Your task to perform on an android device: Open calendar and show me the fourth week of next month Image 0: 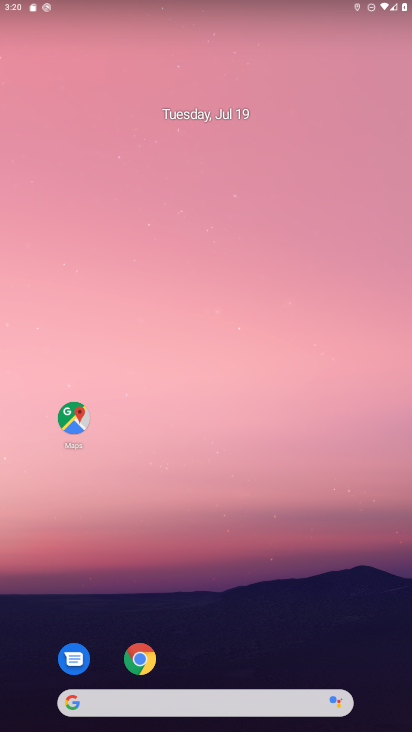
Step 0: drag from (235, 640) to (193, 135)
Your task to perform on an android device: Open calendar and show me the fourth week of next month Image 1: 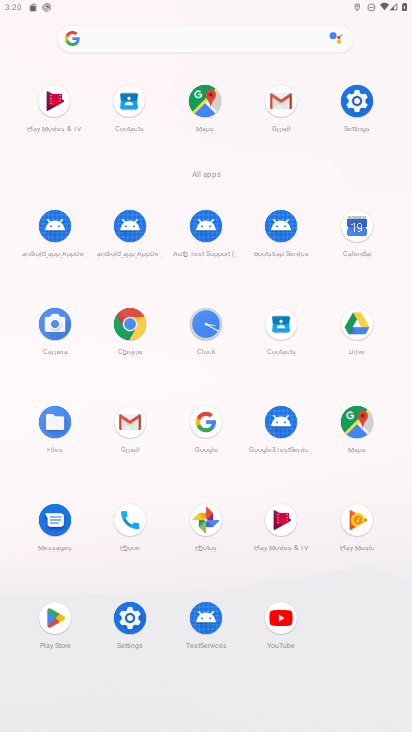
Step 1: click (354, 227)
Your task to perform on an android device: Open calendar and show me the fourth week of next month Image 2: 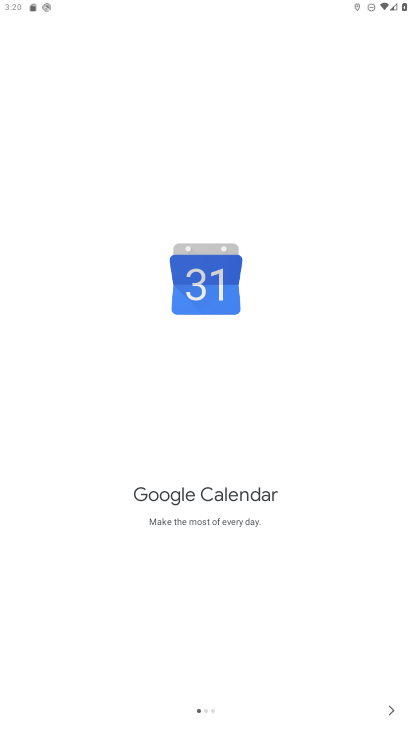
Step 2: click (397, 709)
Your task to perform on an android device: Open calendar and show me the fourth week of next month Image 3: 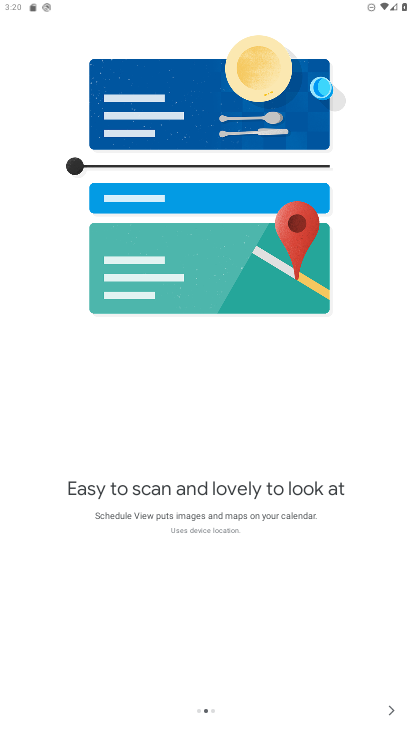
Step 3: click (397, 709)
Your task to perform on an android device: Open calendar and show me the fourth week of next month Image 4: 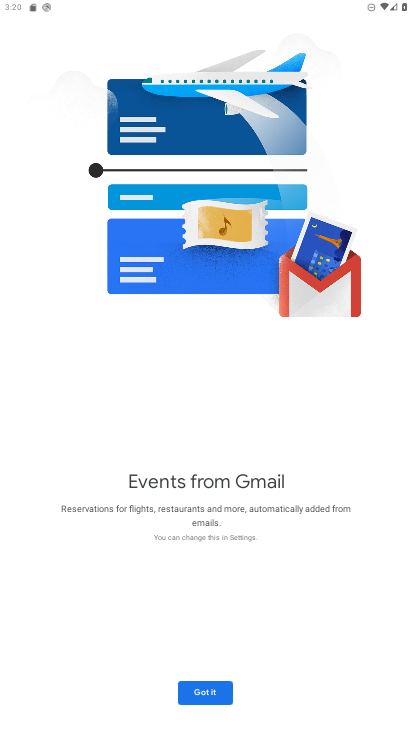
Step 4: click (208, 693)
Your task to perform on an android device: Open calendar and show me the fourth week of next month Image 5: 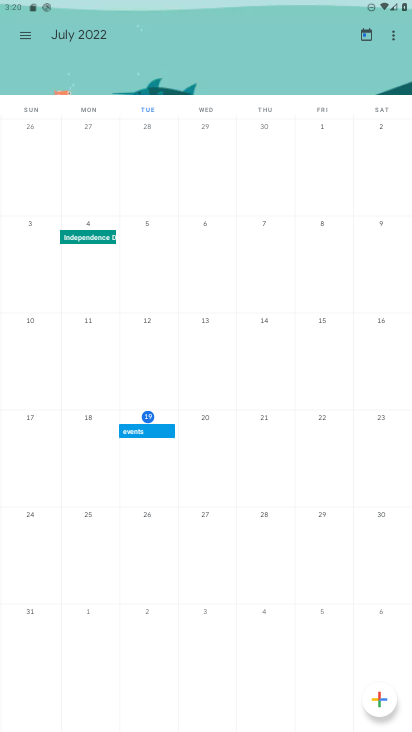
Step 5: click (83, 38)
Your task to perform on an android device: Open calendar and show me the fourth week of next month Image 6: 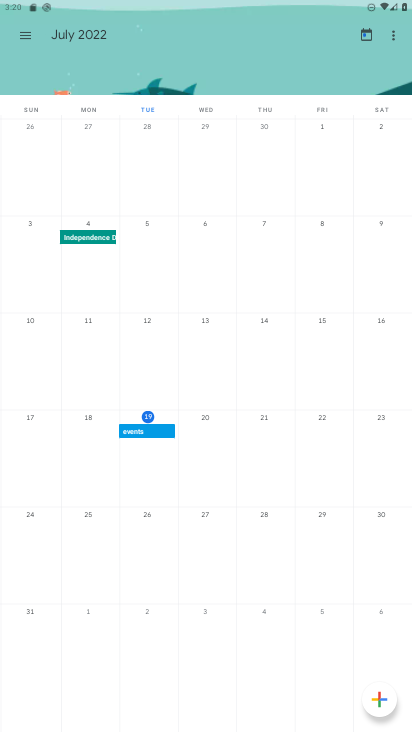
Step 6: drag from (399, 396) to (31, 362)
Your task to perform on an android device: Open calendar and show me the fourth week of next month Image 7: 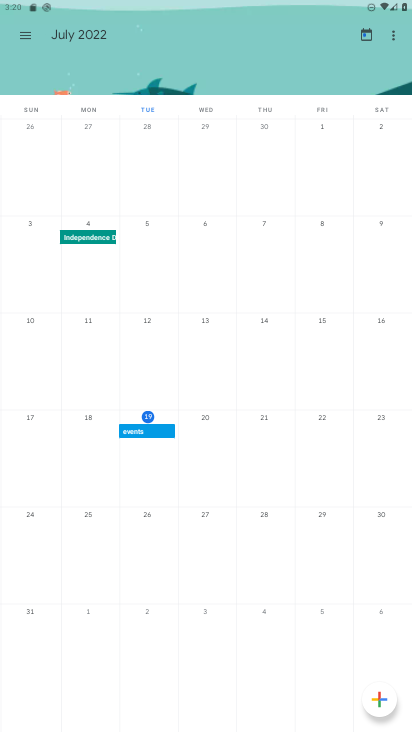
Step 7: drag from (402, 391) to (23, 389)
Your task to perform on an android device: Open calendar and show me the fourth week of next month Image 8: 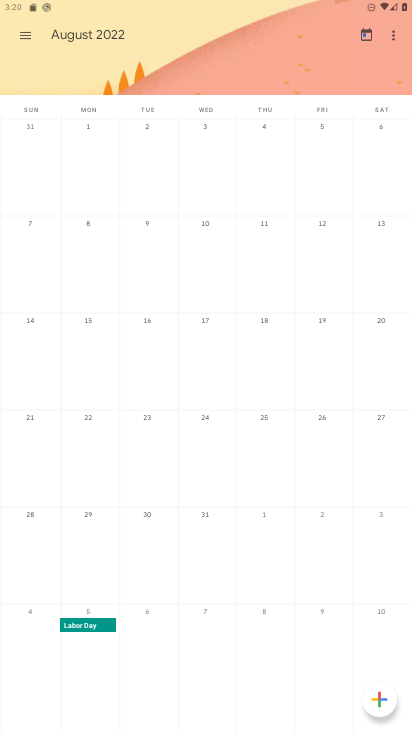
Step 8: click (27, 448)
Your task to perform on an android device: Open calendar and show me the fourth week of next month Image 9: 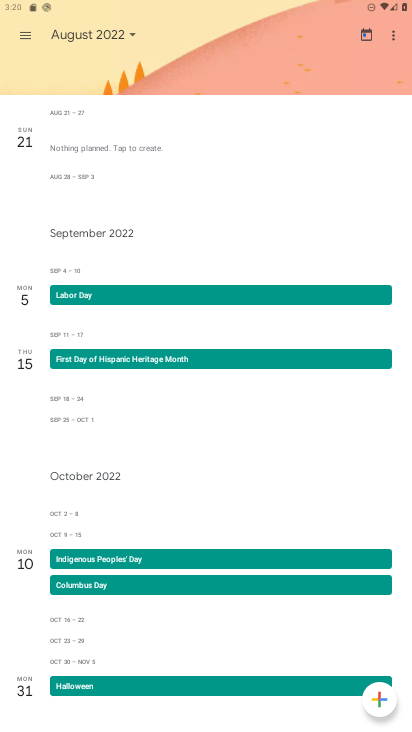
Step 9: task complete